Your task to perform on an android device: Do I have any events tomorrow? Image 0: 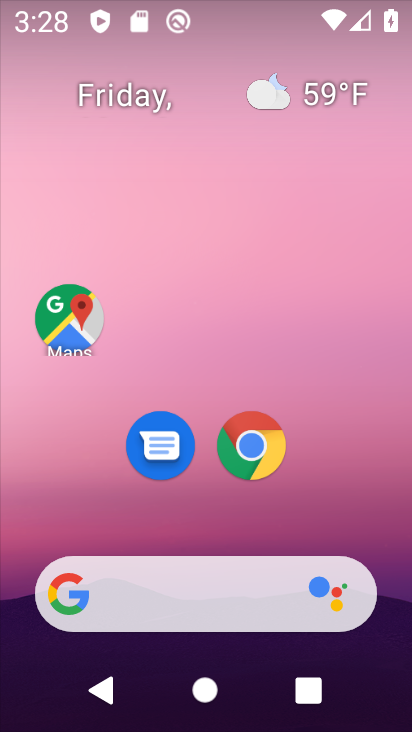
Step 0: drag from (394, 590) to (342, 73)
Your task to perform on an android device: Do I have any events tomorrow? Image 1: 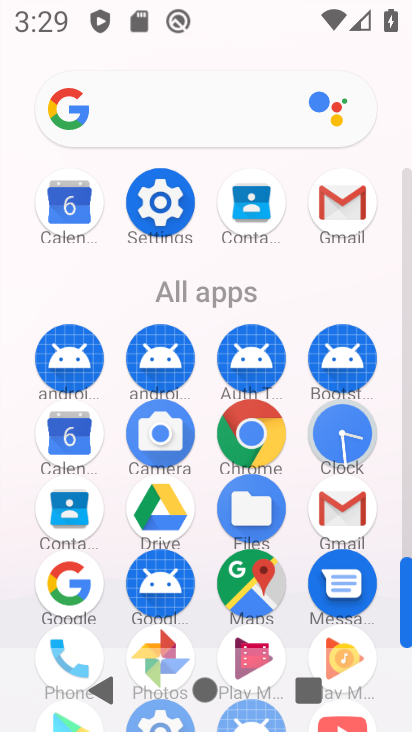
Step 1: drag from (405, 537) to (394, 454)
Your task to perform on an android device: Do I have any events tomorrow? Image 2: 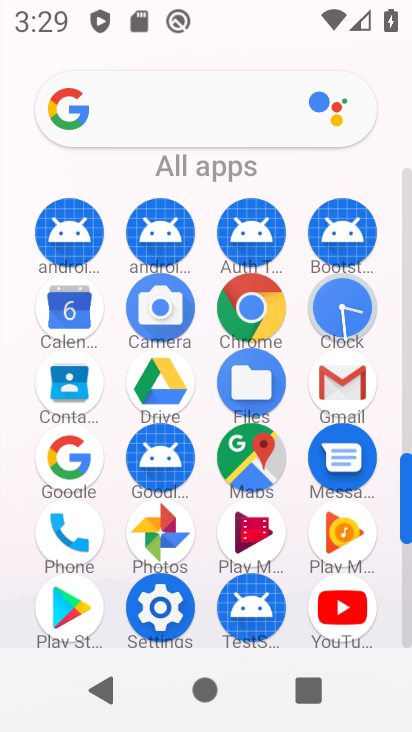
Step 2: click (68, 305)
Your task to perform on an android device: Do I have any events tomorrow? Image 3: 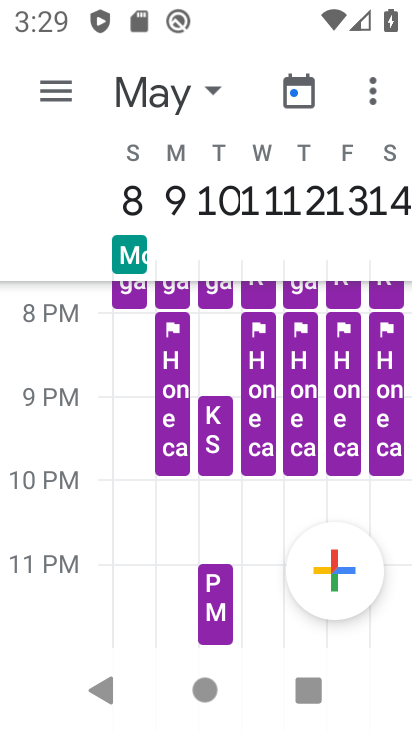
Step 3: click (65, 91)
Your task to perform on an android device: Do I have any events tomorrow? Image 4: 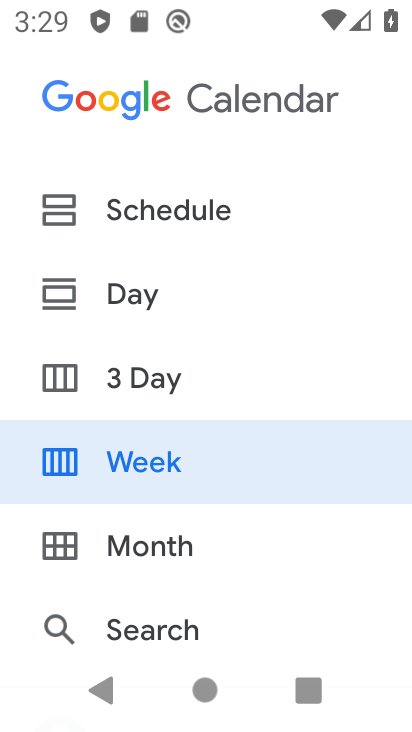
Step 4: click (146, 288)
Your task to perform on an android device: Do I have any events tomorrow? Image 5: 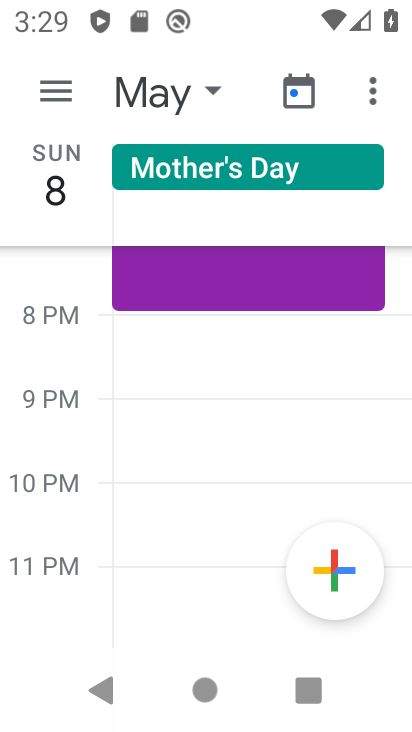
Step 5: click (206, 100)
Your task to perform on an android device: Do I have any events tomorrow? Image 6: 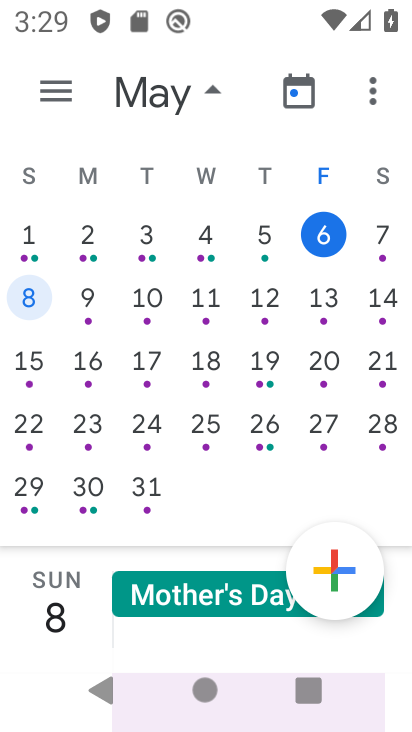
Step 6: click (382, 232)
Your task to perform on an android device: Do I have any events tomorrow? Image 7: 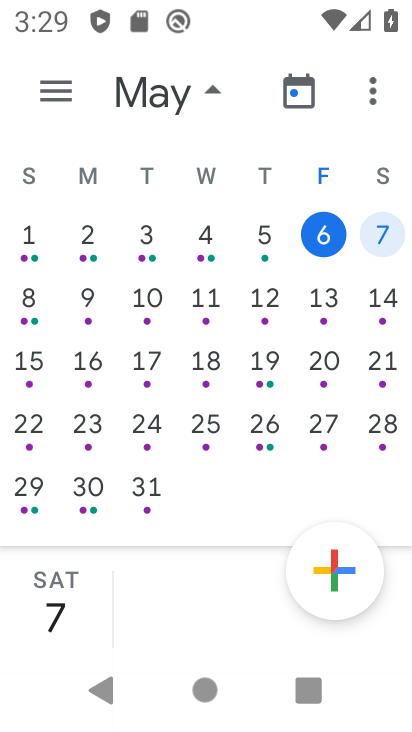
Step 7: task complete